Your task to perform on an android device: delete browsing data in the chrome app Image 0: 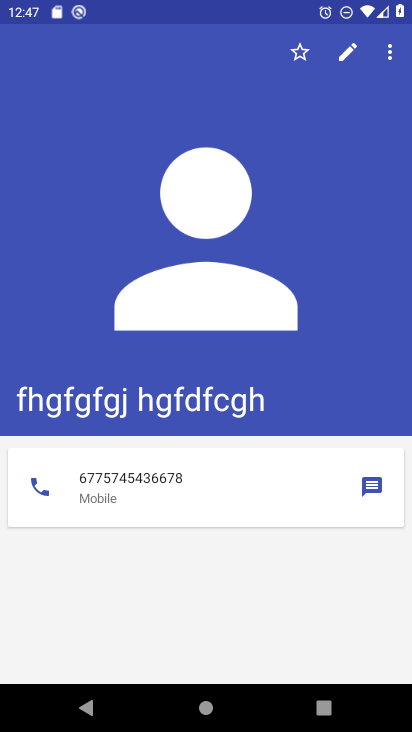
Step 0: press home button
Your task to perform on an android device: delete browsing data in the chrome app Image 1: 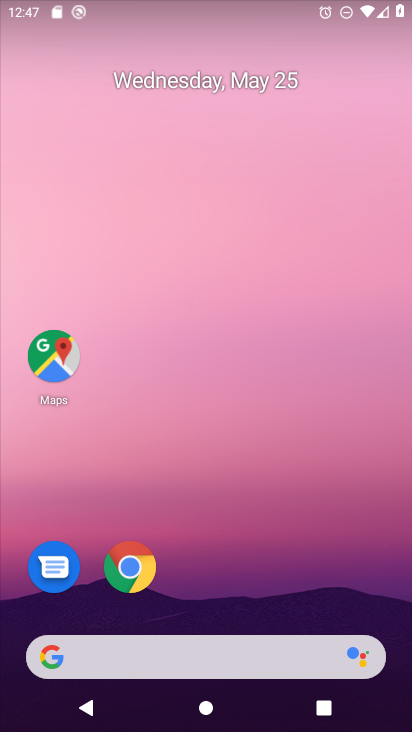
Step 1: click (130, 564)
Your task to perform on an android device: delete browsing data in the chrome app Image 2: 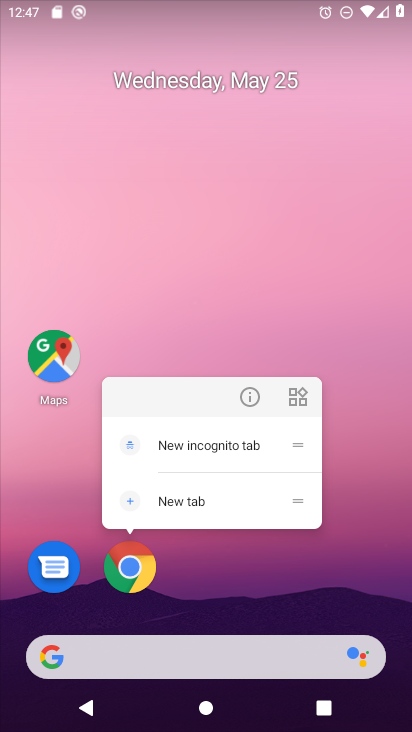
Step 2: click (130, 564)
Your task to perform on an android device: delete browsing data in the chrome app Image 3: 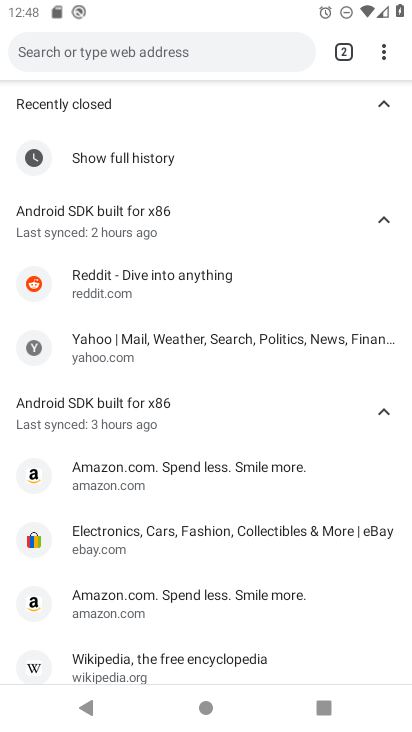
Step 3: click (383, 54)
Your task to perform on an android device: delete browsing data in the chrome app Image 4: 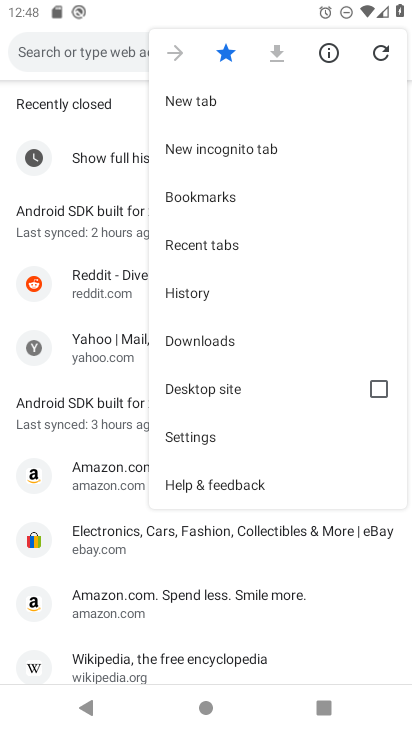
Step 4: click (170, 287)
Your task to perform on an android device: delete browsing data in the chrome app Image 5: 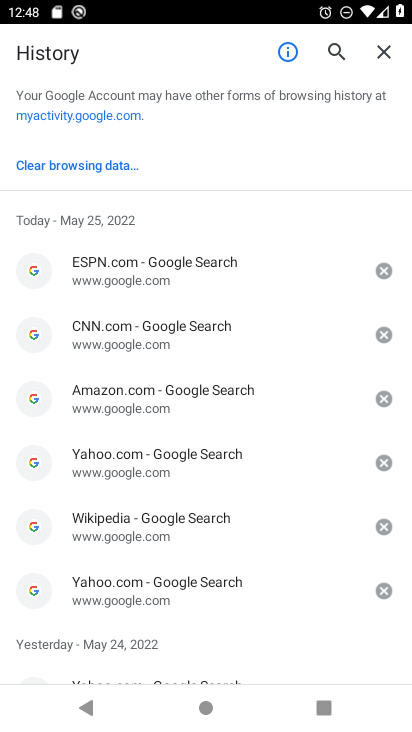
Step 5: click (80, 162)
Your task to perform on an android device: delete browsing data in the chrome app Image 6: 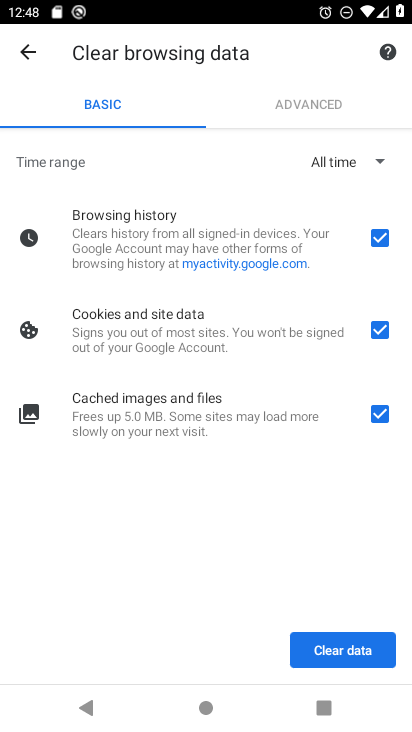
Step 6: click (308, 645)
Your task to perform on an android device: delete browsing data in the chrome app Image 7: 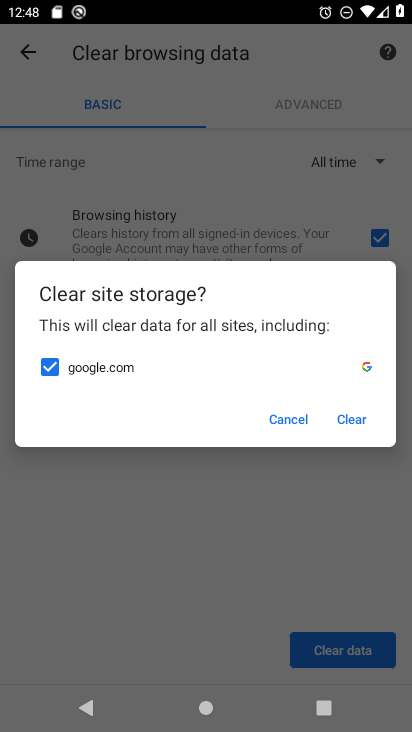
Step 7: click (342, 419)
Your task to perform on an android device: delete browsing data in the chrome app Image 8: 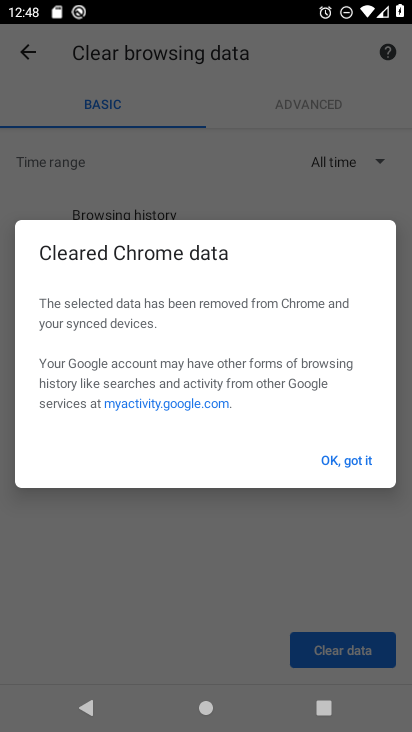
Step 8: click (356, 457)
Your task to perform on an android device: delete browsing data in the chrome app Image 9: 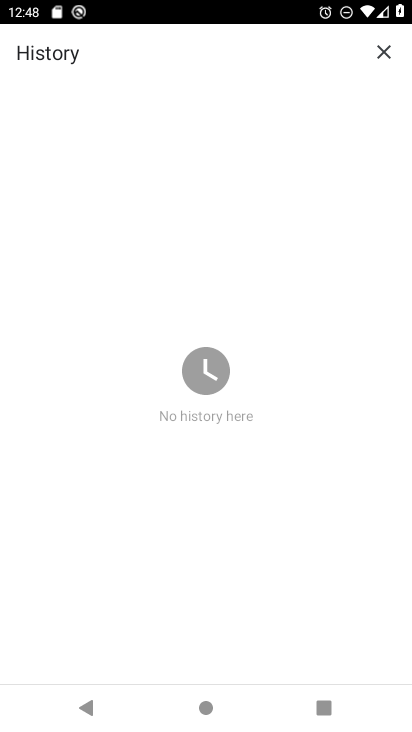
Step 9: task complete